Your task to perform on an android device: Open network settings Image 0: 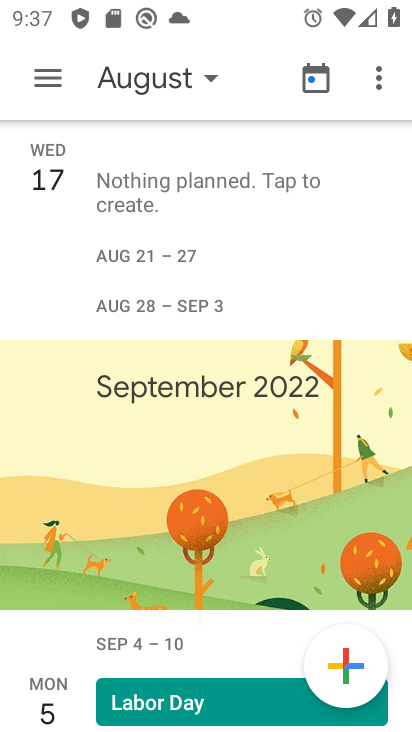
Step 0: press home button
Your task to perform on an android device: Open network settings Image 1: 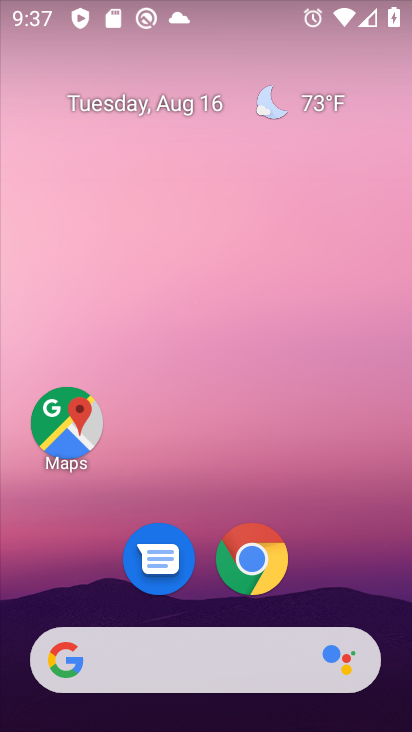
Step 1: drag from (206, 635) to (262, 269)
Your task to perform on an android device: Open network settings Image 2: 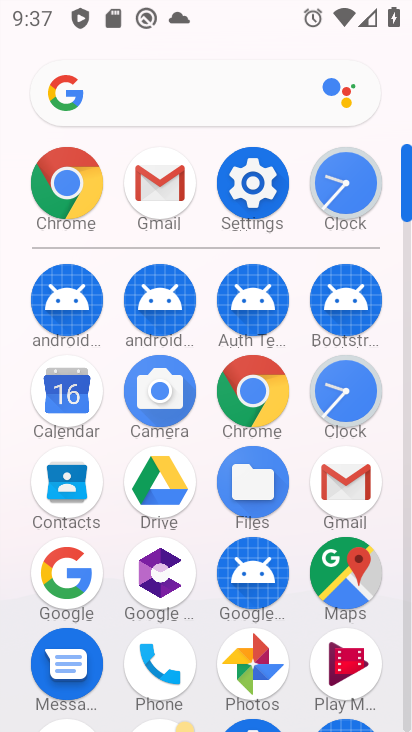
Step 2: click (250, 185)
Your task to perform on an android device: Open network settings Image 3: 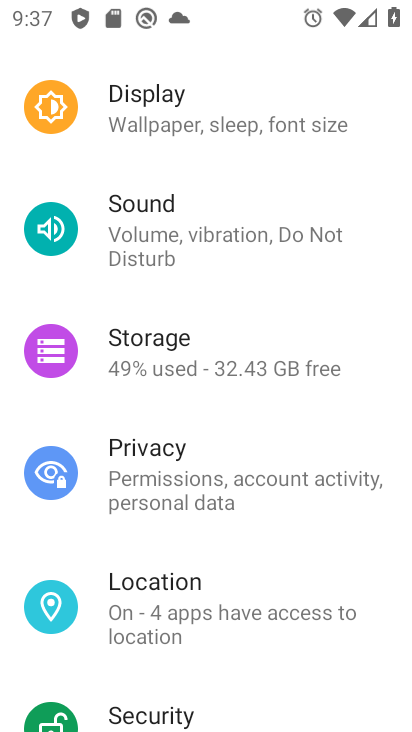
Step 3: drag from (231, 199) to (221, 347)
Your task to perform on an android device: Open network settings Image 4: 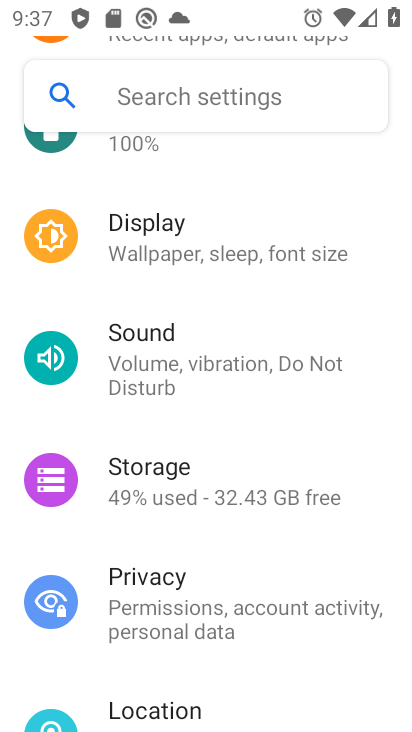
Step 4: drag from (241, 219) to (224, 395)
Your task to perform on an android device: Open network settings Image 5: 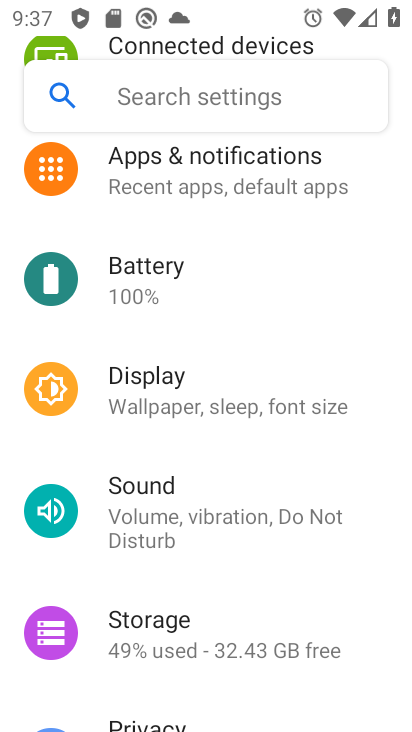
Step 5: drag from (212, 297) to (229, 514)
Your task to perform on an android device: Open network settings Image 6: 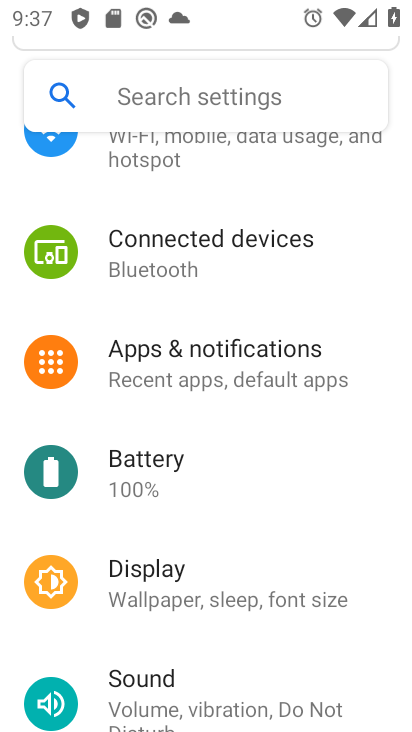
Step 6: drag from (231, 214) to (279, 456)
Your task to perform on an android device: Open network settings Image 7: 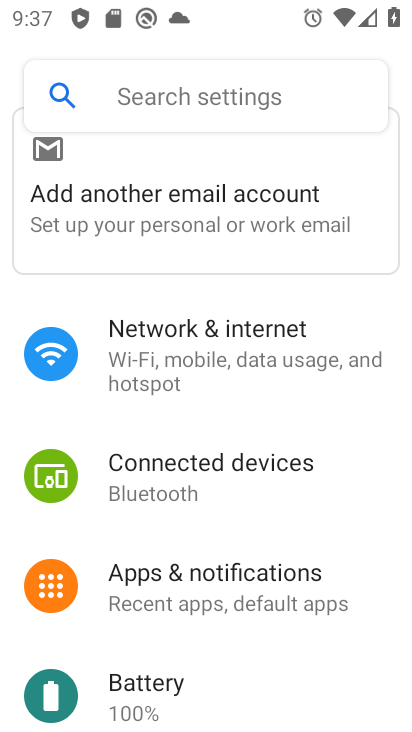
Step 7: click (235, 352)
Your task to perform on an android device: Open network settings Image 8: 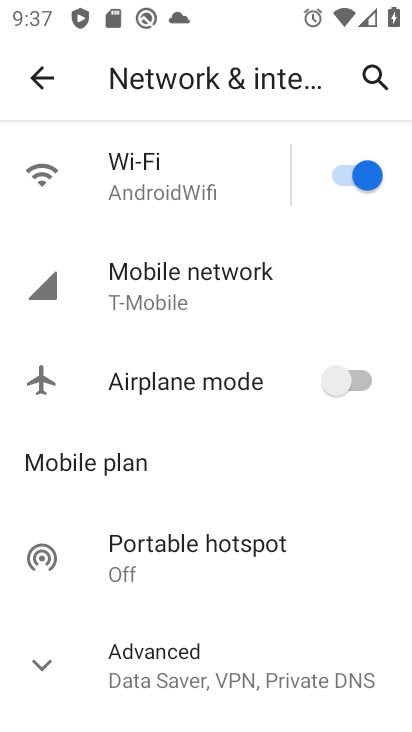
Step 8: click (194, 286)
Your task to perform on an android device: Open network settings Image 9: 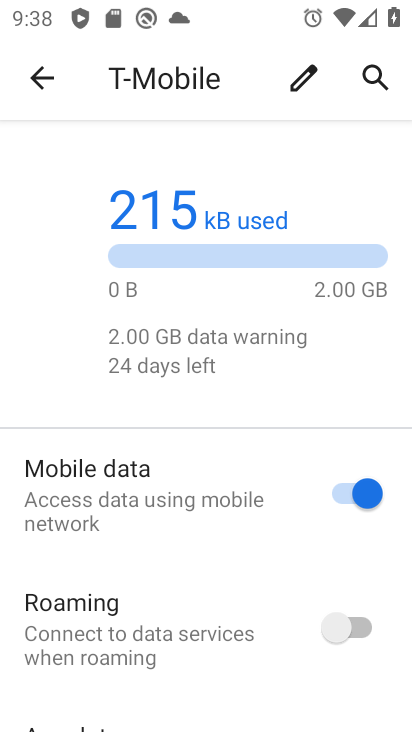
Step 9: task complete